Your task to perform on an android device: Go to wifi settings Image 0: 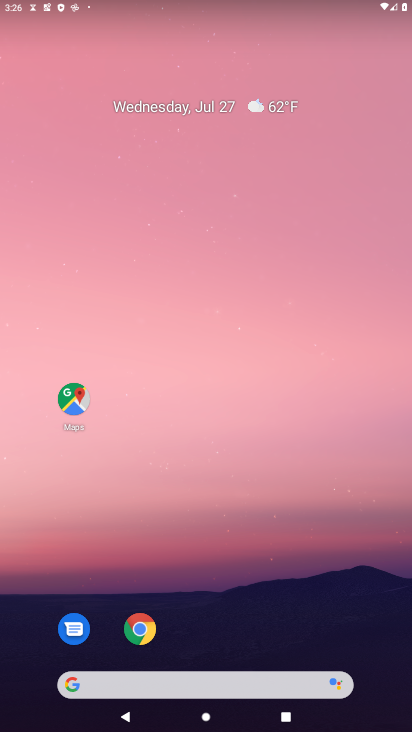
Step 0: drag from (192, 680) to (302, 30)
Your task to perform on an android device: Go to wifi settings Image 1: 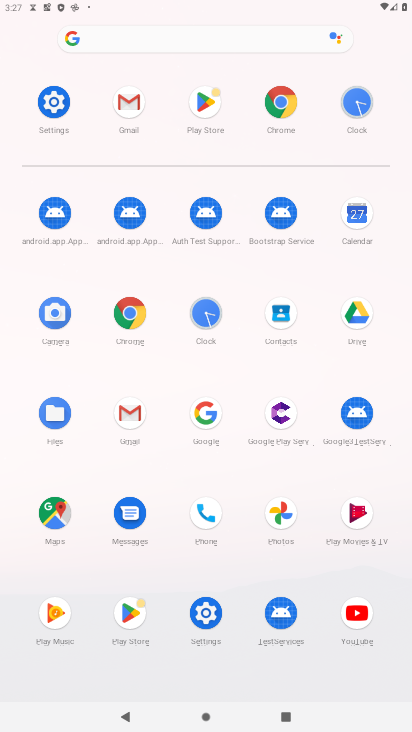
Step 1: click (55, 101)
Your task to perform on an android device: Go to wifi settings Image 2: 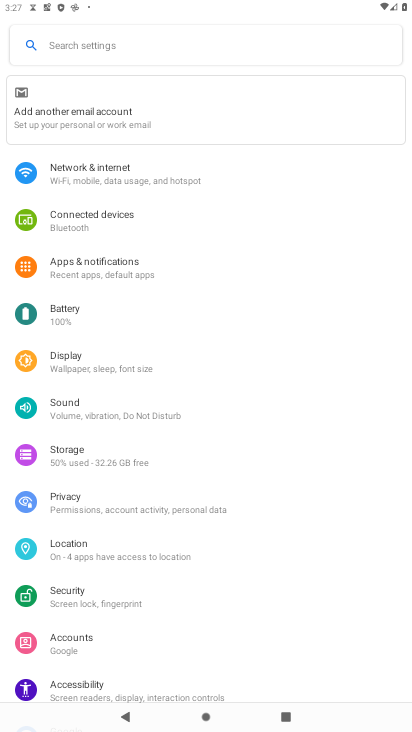
Step 2: click (78, 176)
Your task to perform on an android device: Go to wifi settings Image 3: 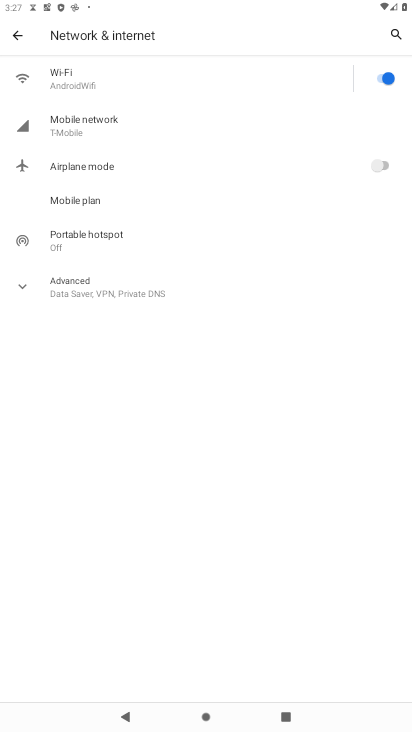
Step 3: click (72, 78)
Your task to perform on an android device: Go to wifi settings Image 4: 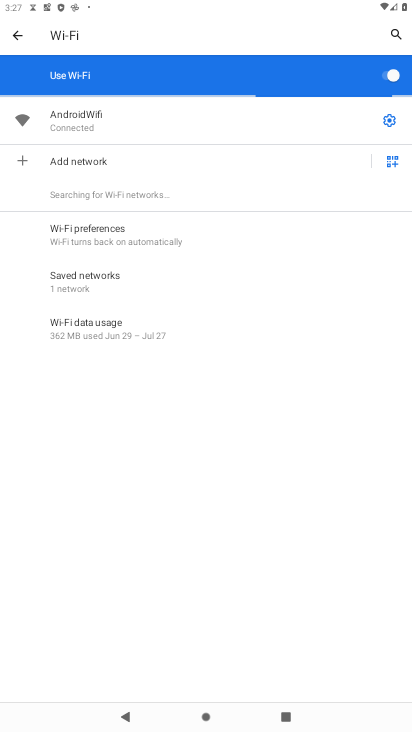
Step 4: click (389, 123)
Your task to perform on an android device: Go to wifi settings Image 5: 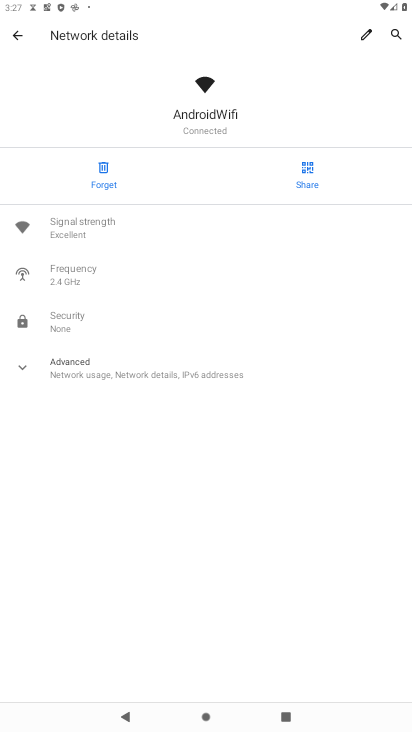
Step 5: task complete